Your task to perform on an android device: Search for pizza restaurants on Maps Image 0: 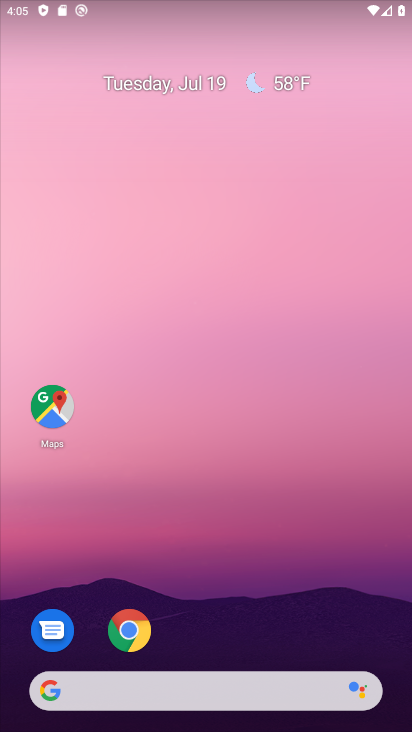
Step 0: drag from (198, 609) to (197, 221)
Your task to perform on an android device: Search for pizza restaurants on Maps Image 1: 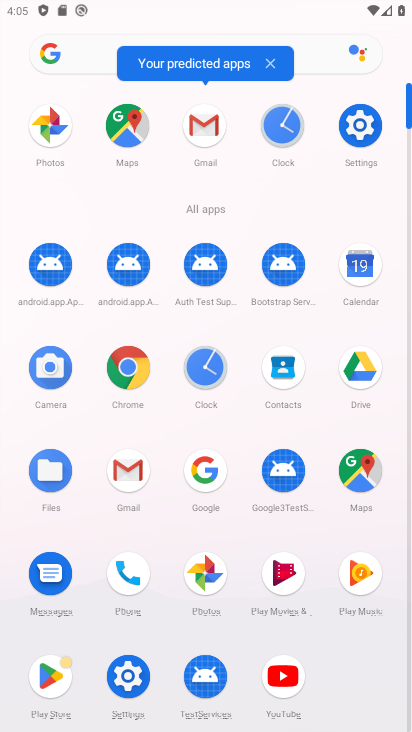
Step 1: click (349, 481)
Your task to perform on an android device: Search for pizza restaurants on Maps Image 2: 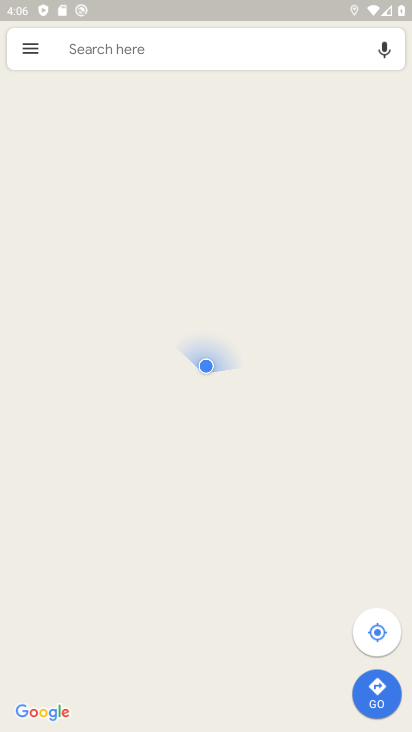
Step 2: click (160, 41)
Your task to perform on an android device: Search for pizza restaurants on Maps Image 3: 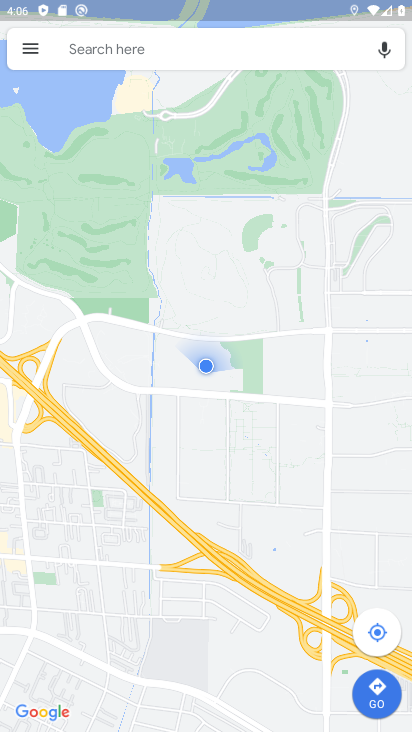
Step 3: type "pizza restaurants "
Your task to perform on an android device: Search for pizza restaurants on Maps Image 4: 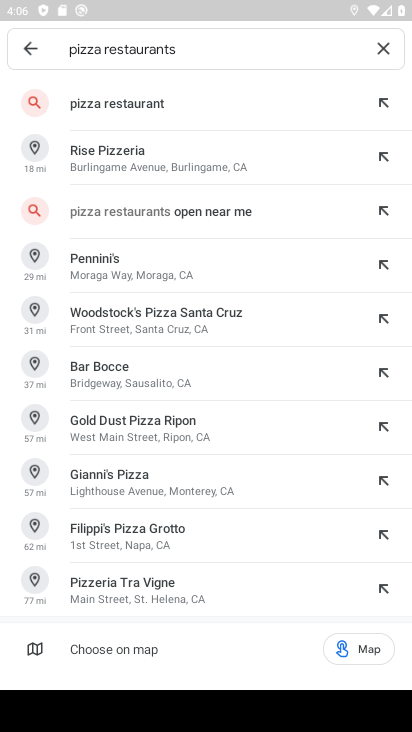
Step 4: click (161, 102)
Your task to perform on an android device: Search for pizza restaurants on Maps Image 5: 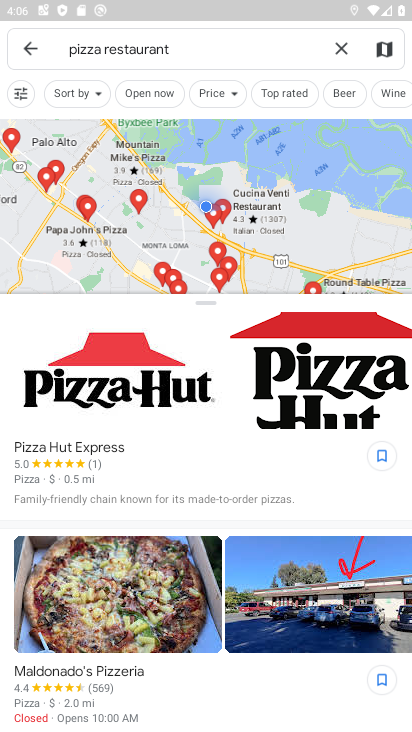
Step 5: task complete